Your task to perform on an android device: toggle pop-ups in chrome Image 0: 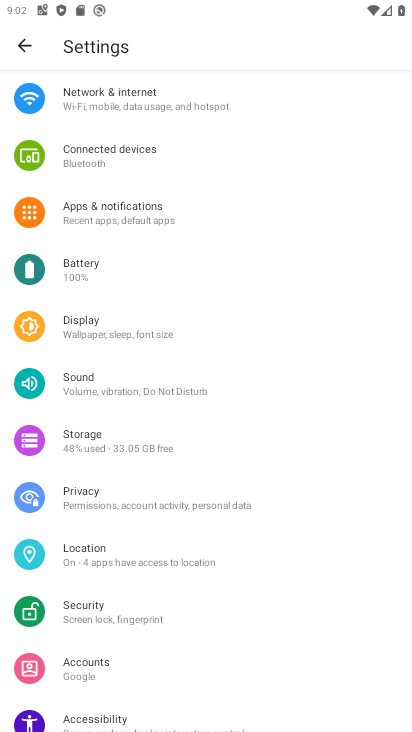
Step 0: press home button
Your task to perform on an android device: toggle pop-ups in chrome Image 1: 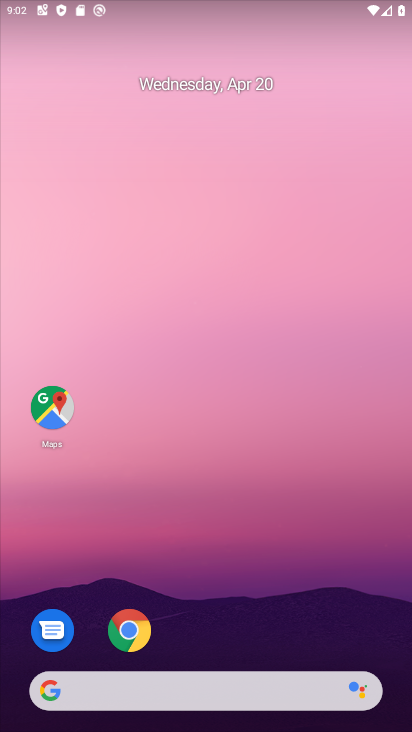
Step 1: drag from (294, 622) to (208, 71)
Your task to perform on an android device: toggle pop-ups in chrome Image 2: 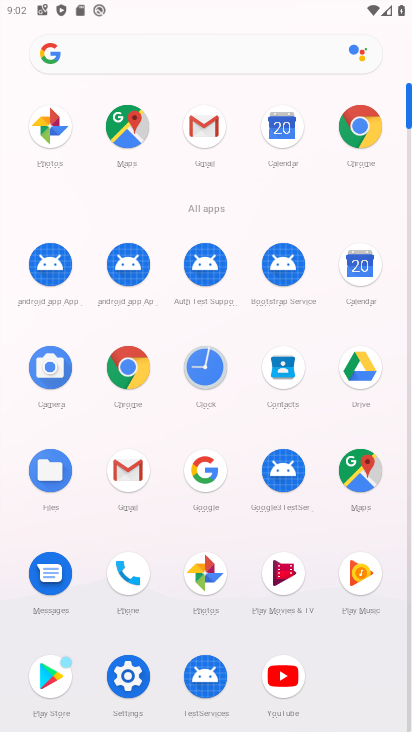
Step 2: click (364, 127)
Your task to perform on an android device: toggle pop-ups in chrome Image 3: 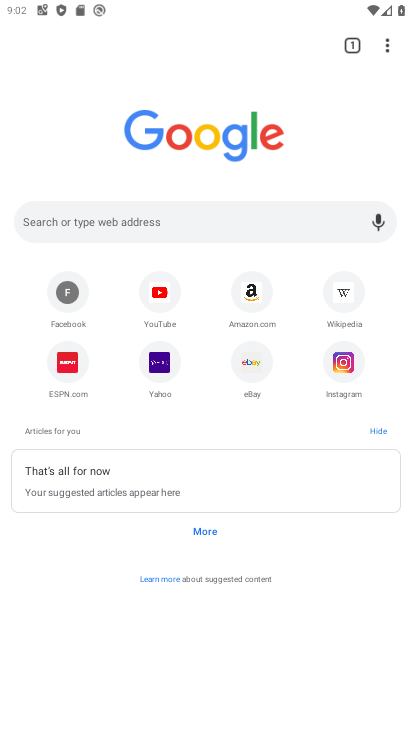
Step 3: click (386, 46)
Your task to perform on an android device: toggle pop-ups in chrome Image 4: 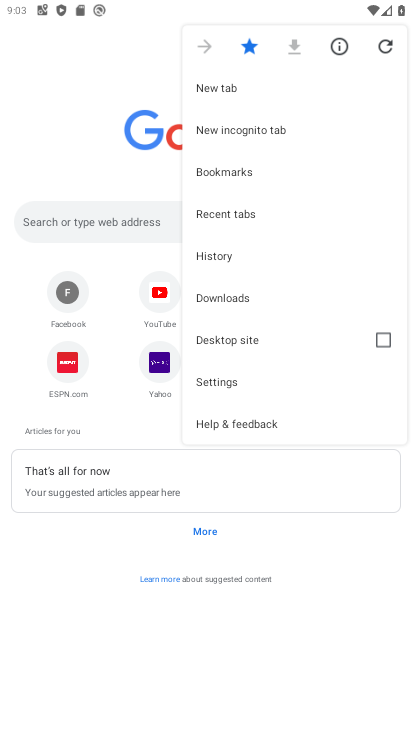
Step 4: click (280, 392)
Your task to perform on an android device: toggle pop-ups in chrome Image 5: 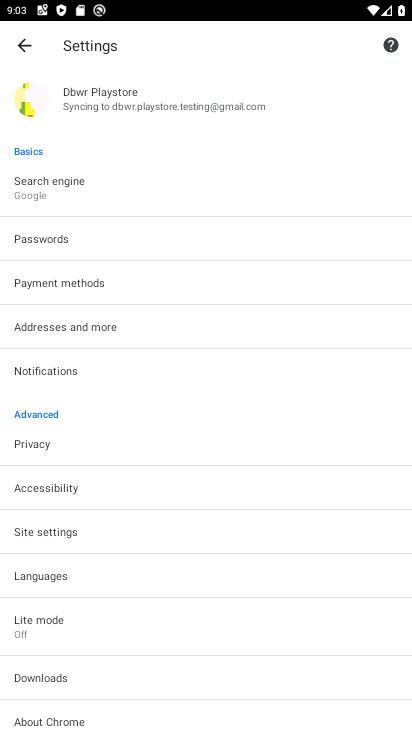
Step 5: click (196, 539)
Your task to perform on an android device: toggle pop-ups in chrome Image 6: 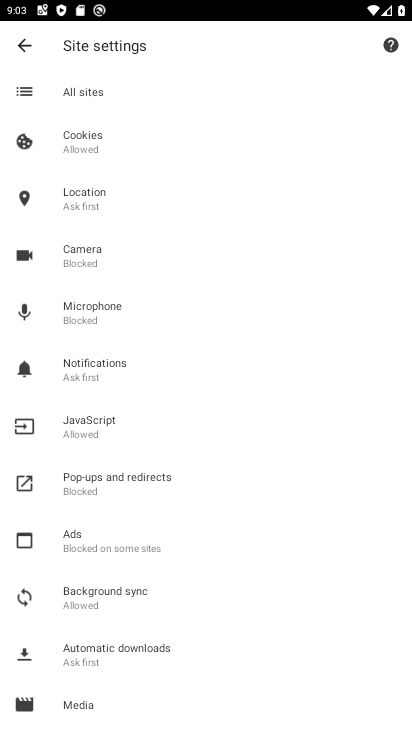
Step 6: click (216, 483)
Your task to perform on an android device: toggle pop-ups in chrome Image 7: 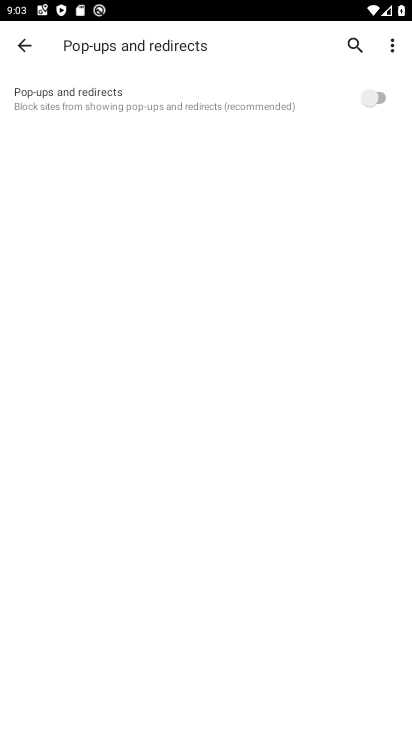
Step 7: click (387, 101)
Your task to perform on an android device: toggle pop-ups in chrome Image 8: 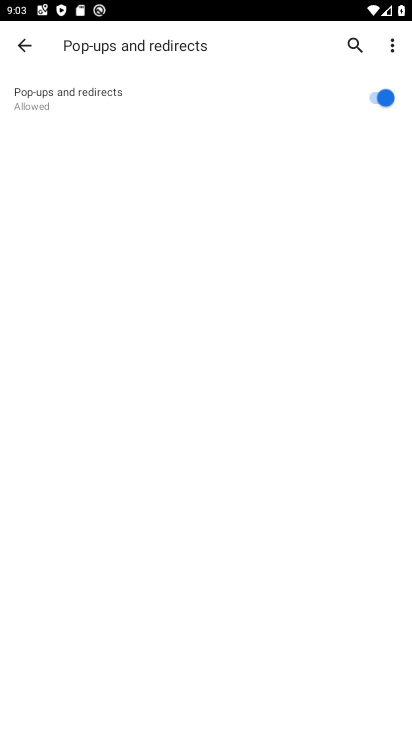
Step 8: task complete